Your task to perform on an android device: Open Yahoo.com Image 0: 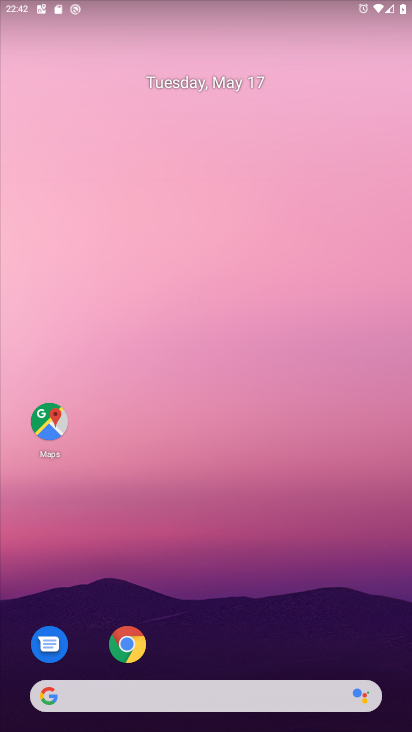
Step 0: press home button
Your task to perform on an android device: Open Yahoo.com Image 1: 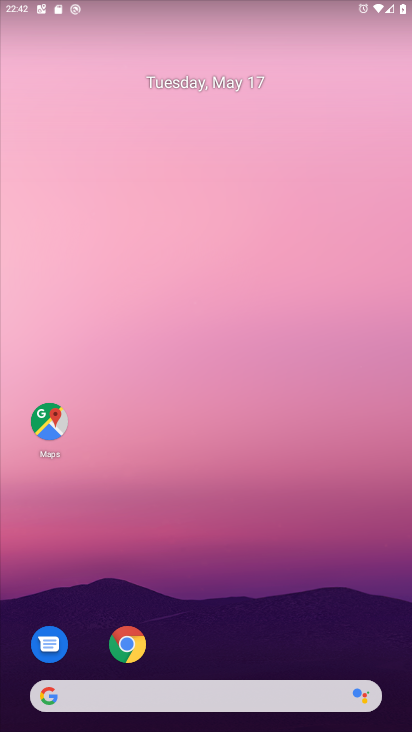
Step 1: click (124, 639)
Your task to perform on an android device: Open Yahoo.com Image 2: 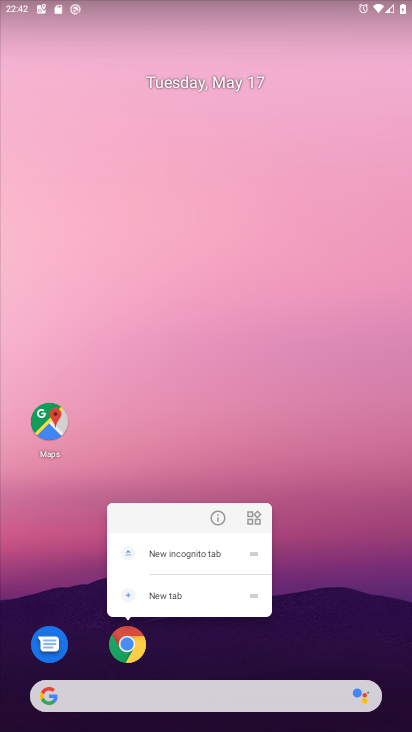
Step 2: click (125, 637)
Your task to perform on an android device: Open Yahoo.com Image 3: 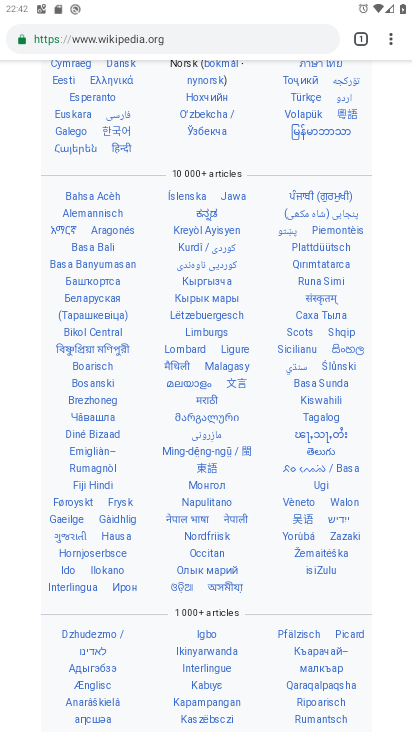
Step 3: click (355, 33)
Your task to perform on an android device: Open Yahoo.com Image 4: 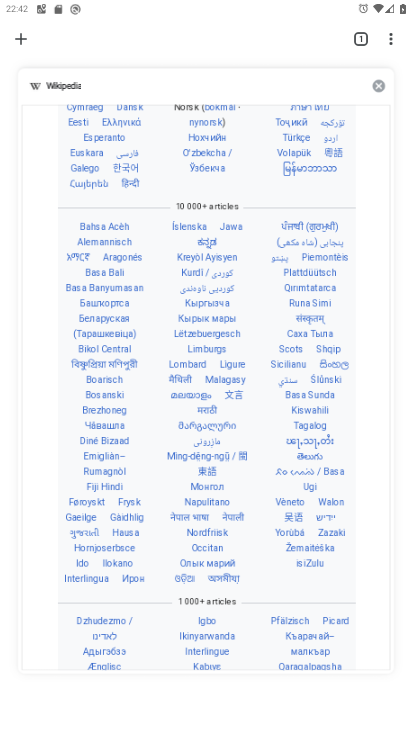
Step 4: click (384, 82)
Your task to perform on an android device: Open Yahoo.com Image 5: 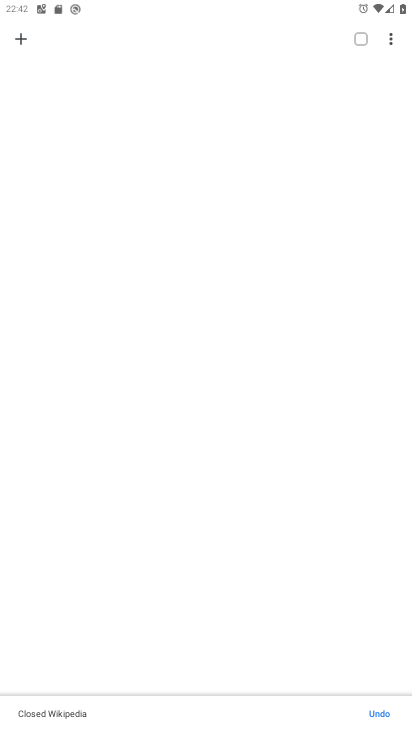
Step 5: click (25, 39)
Your task to perform on an android device: Open Yahoo.com Image 6: 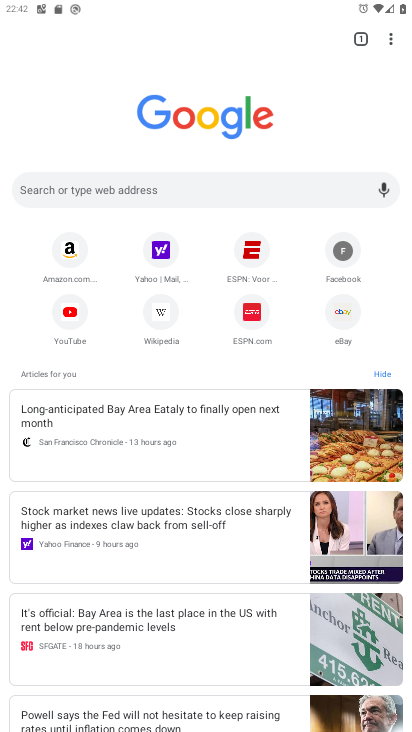
Step 6: click (158, 249)
Your task to perform on an android device: Open Yahoo.com Image 7: 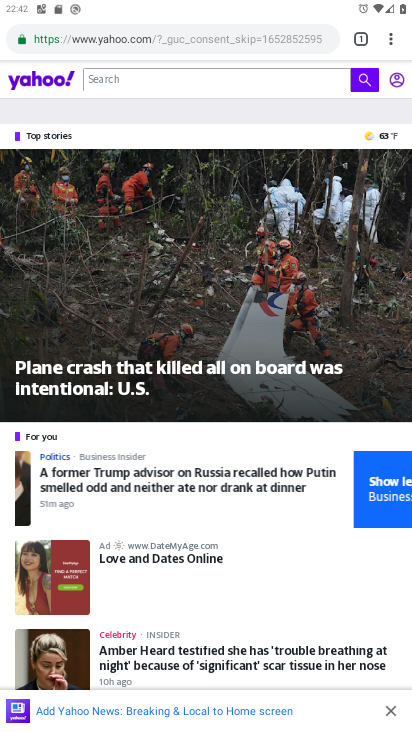
Step 7: task complete